Your task to perform on an android device: show emergency info Image 0: 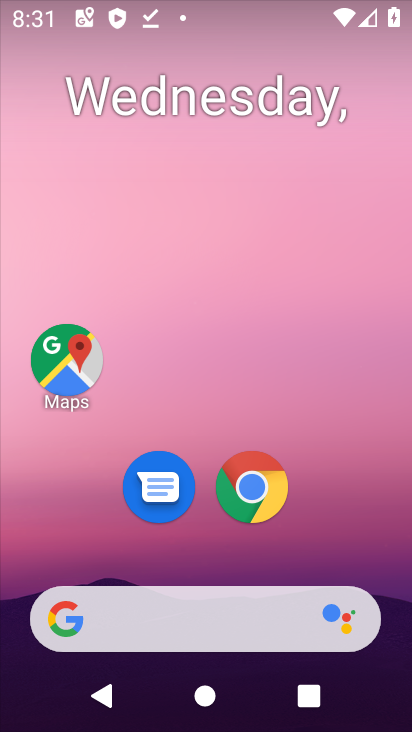
Step 0: drag from (252, 652) to (175, 106)
Your task to perform on an android device: show emergency info Image 1: 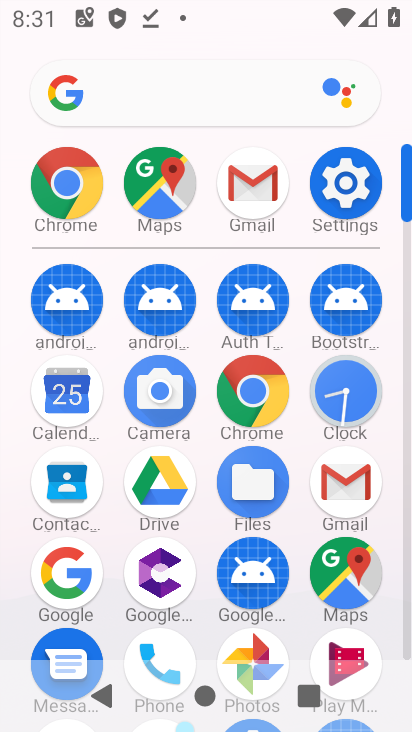
Step 1: click (345, 185)
Your task to perform on an android device: show emergency info Image 2: 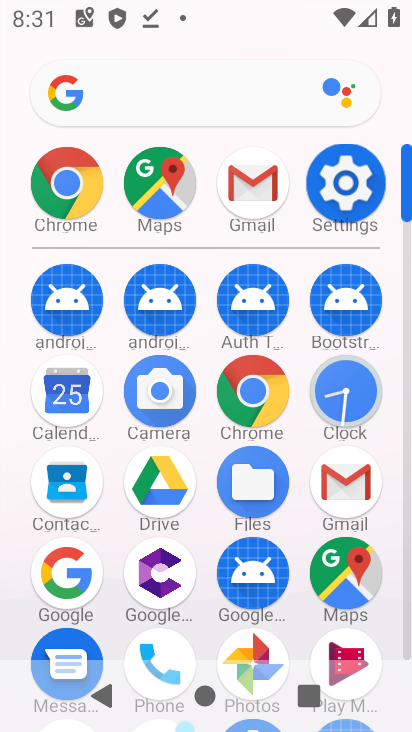
Step 2: click (345, 185)
Your task to perform on an android device: show emergency info Image 3: 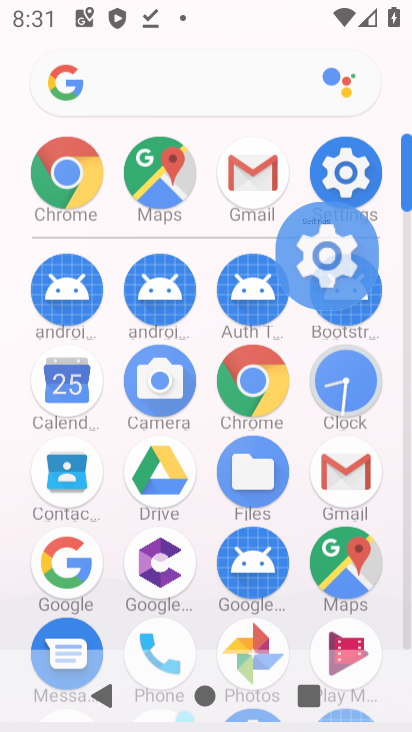
Step 3: click (346, 185)
Your task to perform on an android device: show emergency info Image 4: 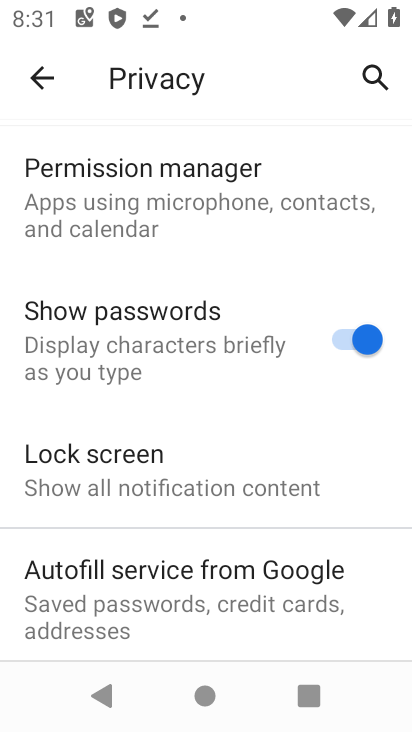
Step 4: drag from (126, 550) to (220, 71)
Your task to perform on an android device: show emergency info Image 5: 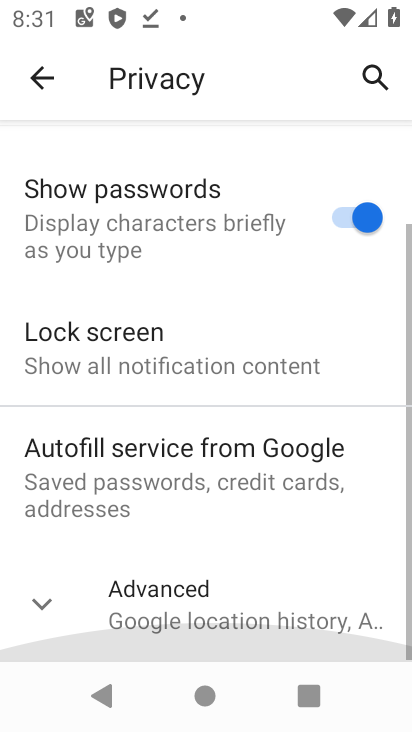
Step 5: drag from (105, 589) to (199, 164)
Your task to perform on an android device: show emergency info Image 6: 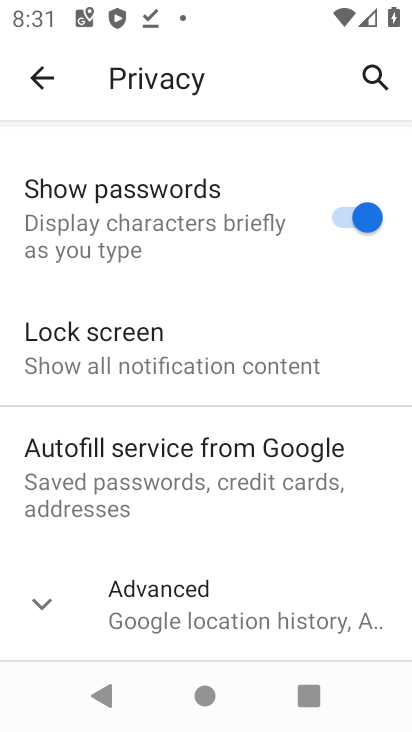
Step 6: click (43, 74)
Your task to perform on an android device: show emergency info Image 7: 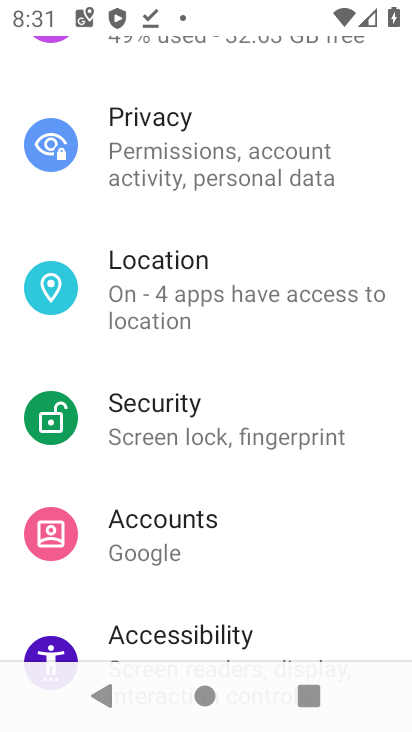
Step 7: drag from (198, 527) to (229, 41)
Your task to perform on an android device: show emergency info Image 8: 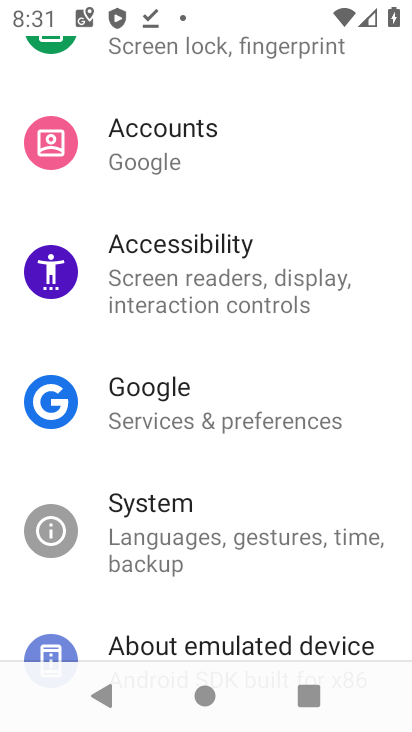
Step 8: drag from (241, 327) to (250, 81)
Your task to perform on an android device: show emergency info Image 9: 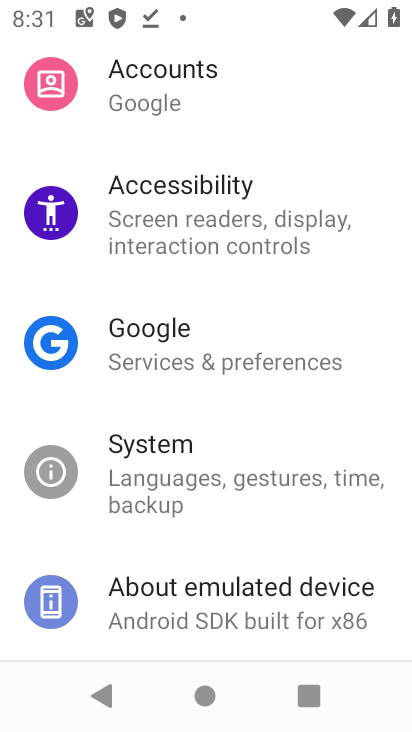
Step 9: drag from (237, 543) to (223, 204)
Your task to perform on an android device: show emergency info Image 10: 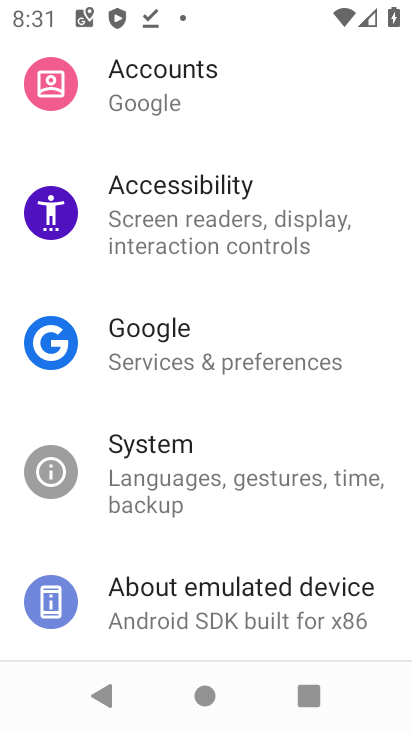
Step 10: click (167, 570)
Your task to perform on an android device: show emergency info Image 11: 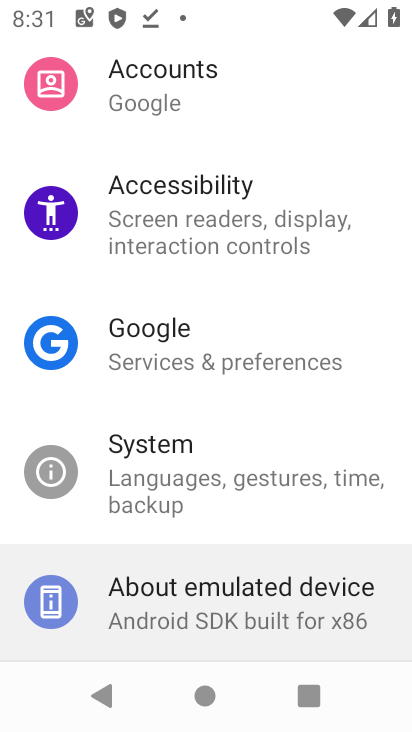
Step 11: click (182, 597)
Your task to perform on an android device: show emergency info Image 12: 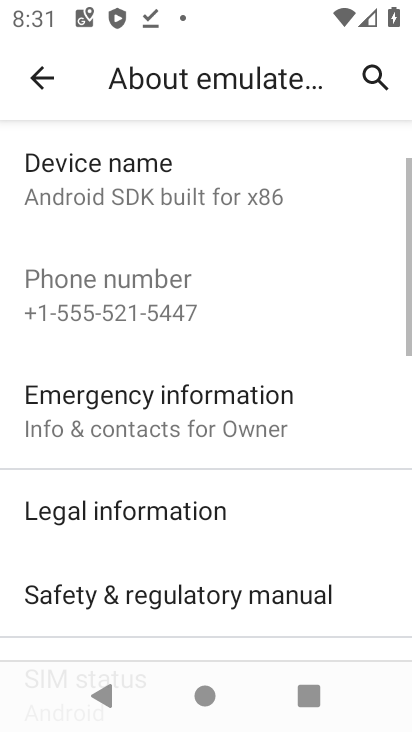
Step 12: click (167, 405)
Your task to perform on an android device: show emergency info Image 13: 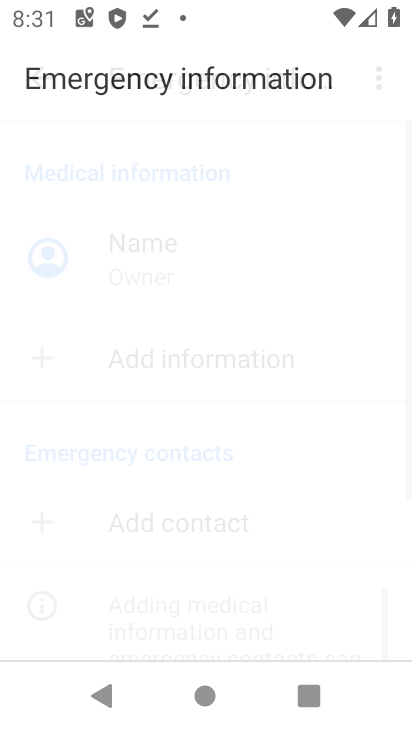
Step 13: task complete